Your task to perform on an android device: Go to Amazon Image 0: 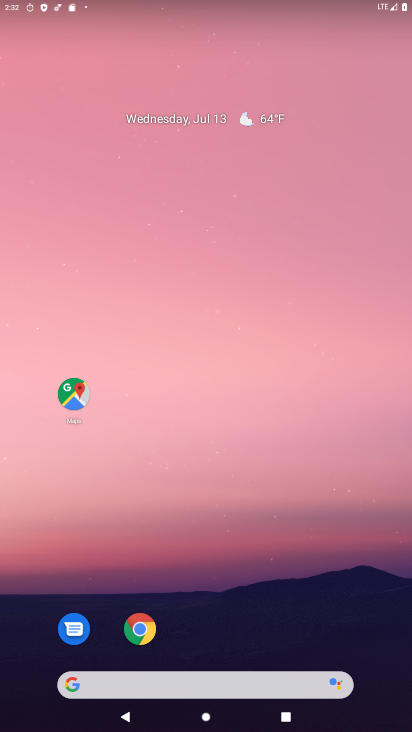
Step 0: drag from (331, 681) to (295, 87)
Your task to perform on an android device: Go to Amazon Image 1: 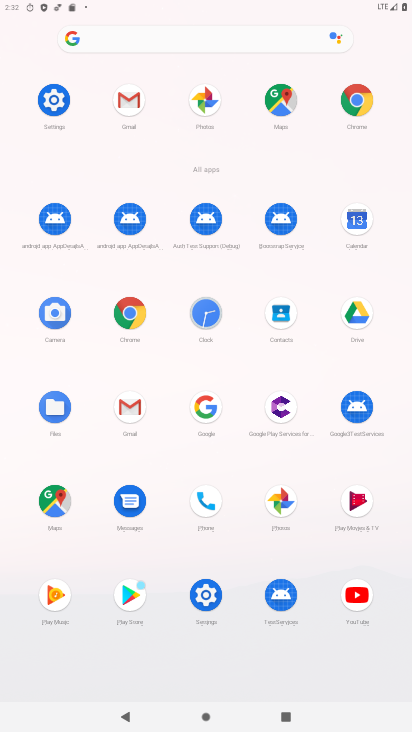
Step 1: click (132, 302)
Your task to perform on an android device: Go to Amazon Image 2: 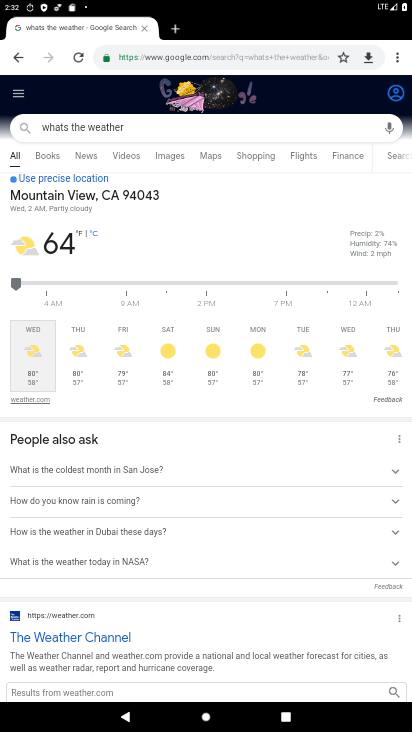
Step 2: click (290, 63)
Your task to perform on an android device: Go to Amazon Image 3: 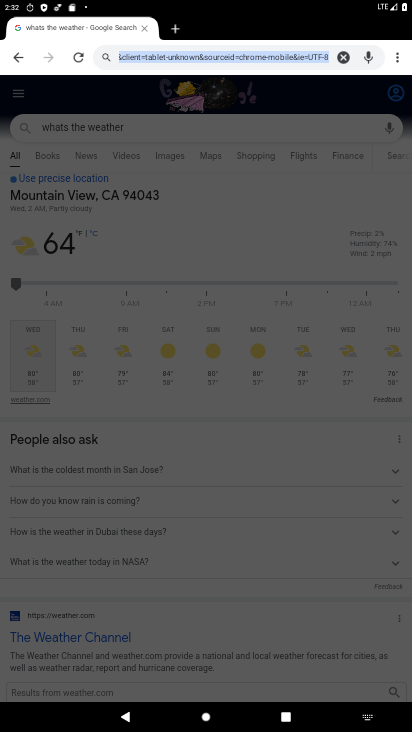
Step 3: type "amazom"
Your task to perform on an android device: Go to Amazon Image 4: 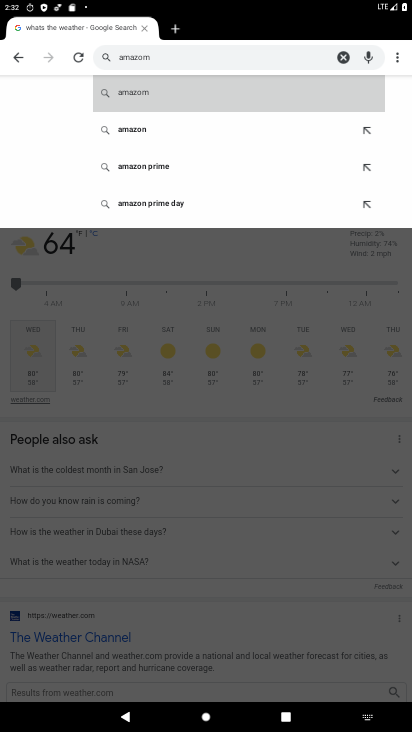
Step 4: click (193, 96)
Your task to perform on an android device: Go to Amazon Image 5: 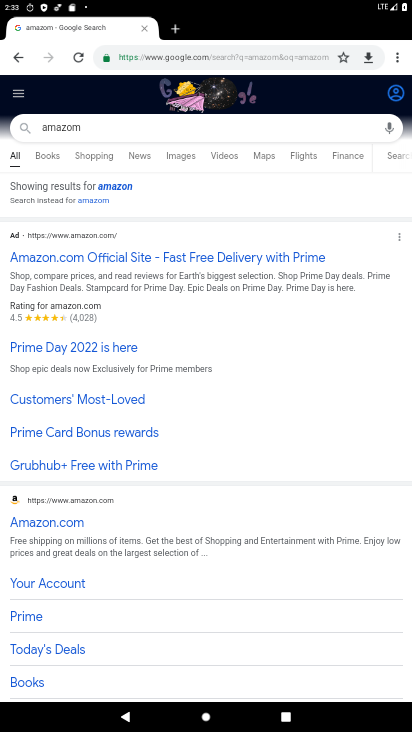
Step 5: click (43, 524)
Your task to perform on an android device: Go to Amazon Image 6: 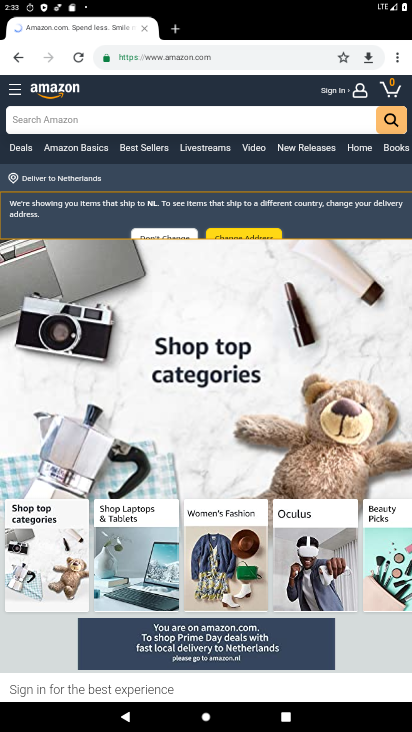
Step 6: task complete